Your task to perform on an android device: toggle javascript in the chrome app Image 0: 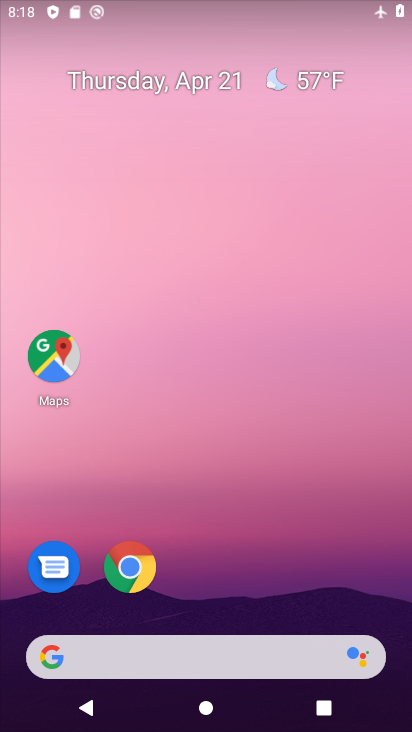
Step 0: click (114, 568)
Your task to perform on an android device: toggle javascript in the chrome app Image 1: 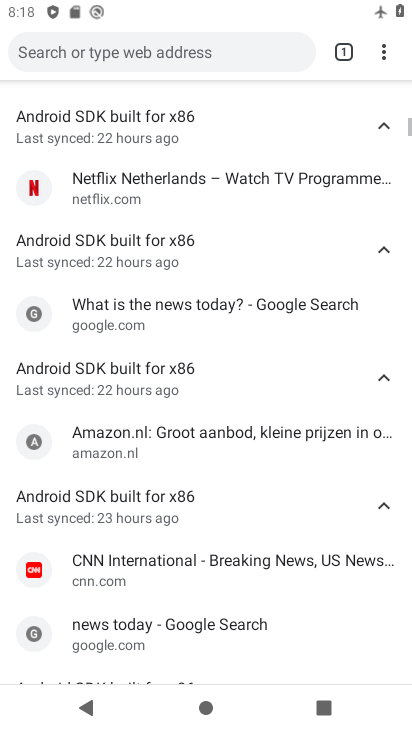
Step 1: drag from (381, 60) to (229, 487)
Your task to perform on an android device: toggle javascript in the chrome app Image 2: 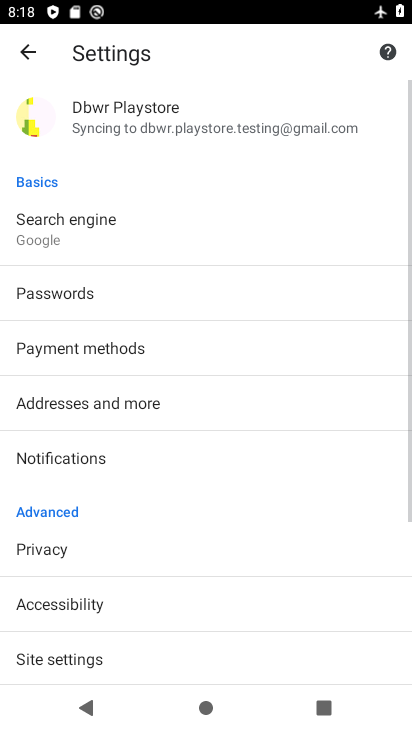
Step 2: drag from (182, 612) to (233, 283)
Your task to perform on an android device: toggle javascript in the chrome app Image 3: 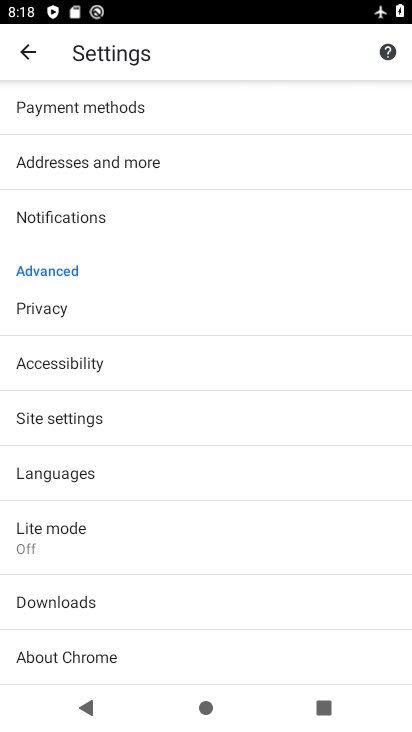
Step 3: click (125, 424)
Your task to perform on an android device: toggle javascript in the chrome app Image 4: 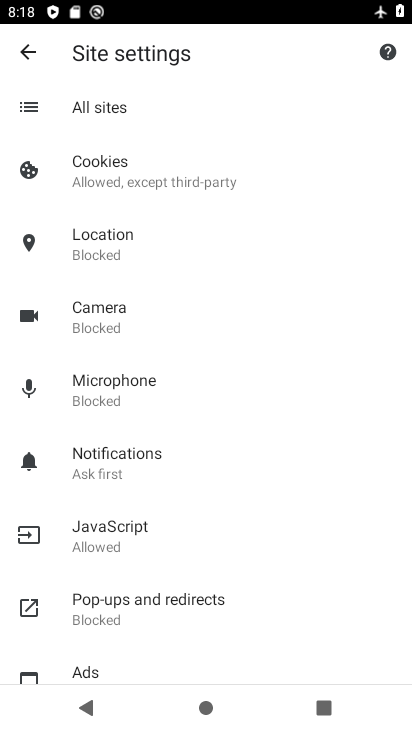
Step 4: click (110, 526)
Your task to perform on an android device: toggle javascript in the chrome app Image 5: 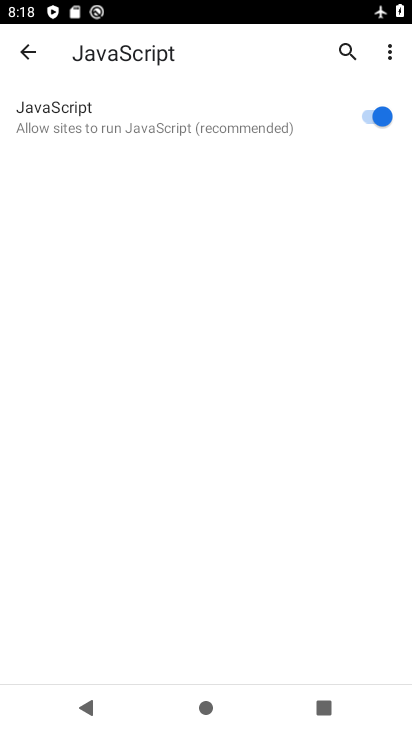
Step 5: click (369, 123)
Your task to perform on an android device: toggle javascript in the chrome app Image 6: 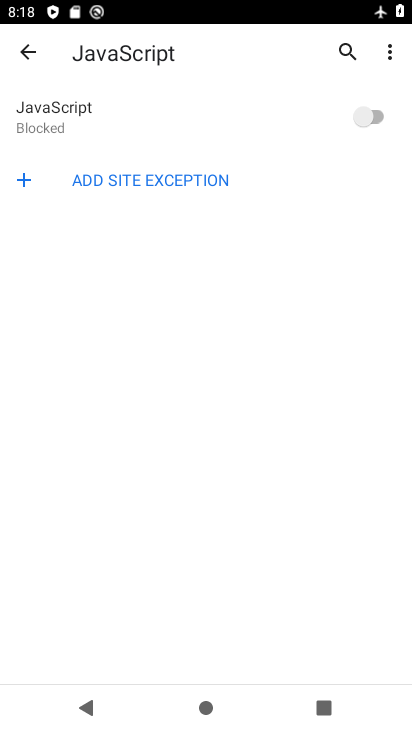
Step 6: task complete